Your task to perform on an android device: check google app version Image 0: 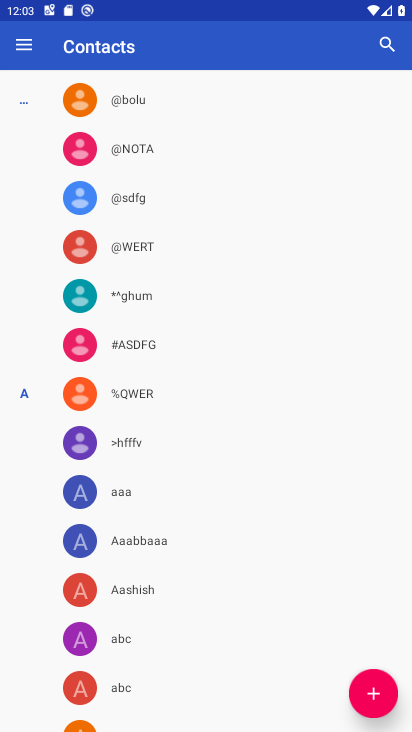
Step 0: press home button
Your task to perform on an android device: check google app version Image 1: 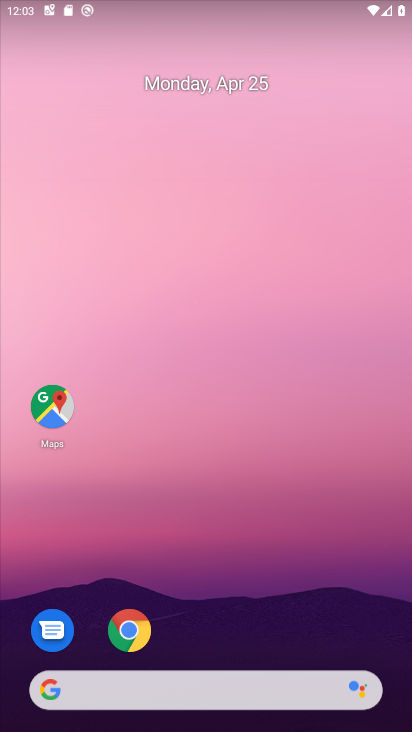
Step 1: drag from (198, 627) to (199, 161)
Your task to perform on an android device: check google app version Image 2: 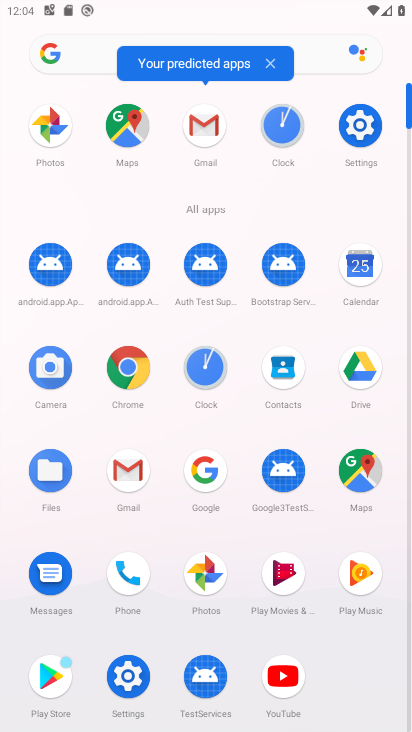
Step 2: click (203, 467)
Your task to perform on an android device: check google app version Image 3: 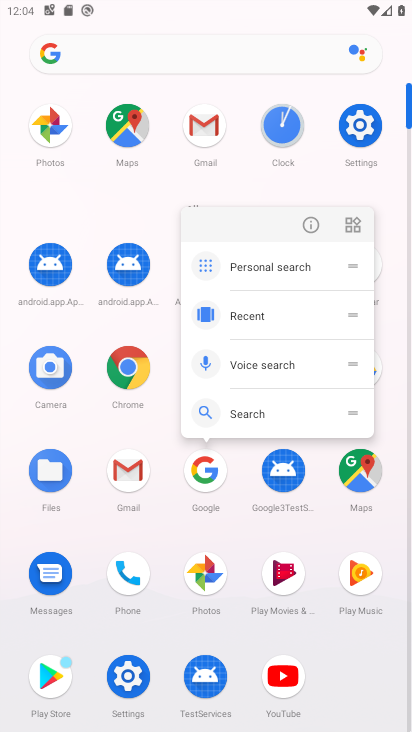
Step 3: click (307, 224)
Your task to perform on an android device: check google app version Image 4: 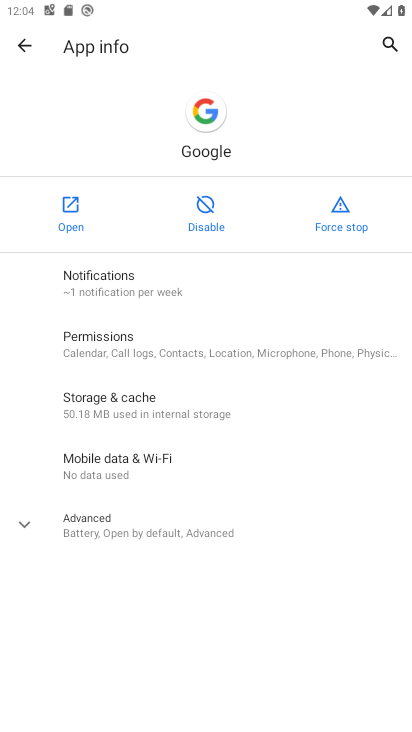
Step 4: click (59, 209)
Your task to perform on an android device: check google app version Image 5: 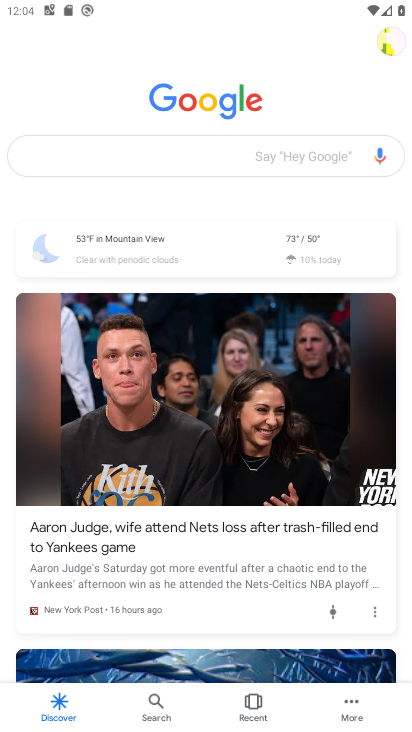
Step 5: click (391, 38)
Your task to perform on an android device: check google app version Image 6: 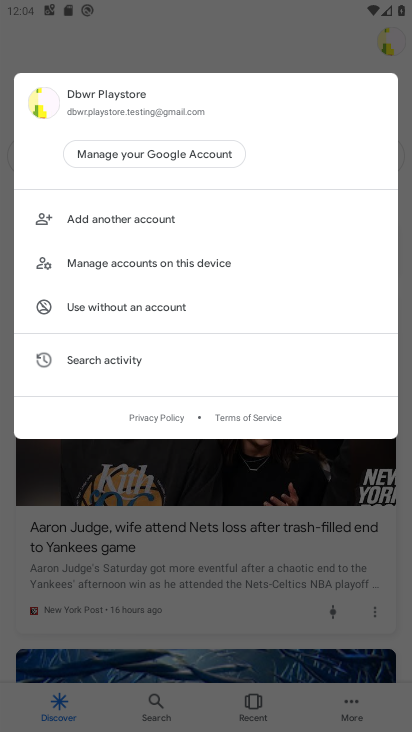
Step 6: drag from (116, 305) to (167, 93)
Your task to perform on an android device: check google app version Image 7: 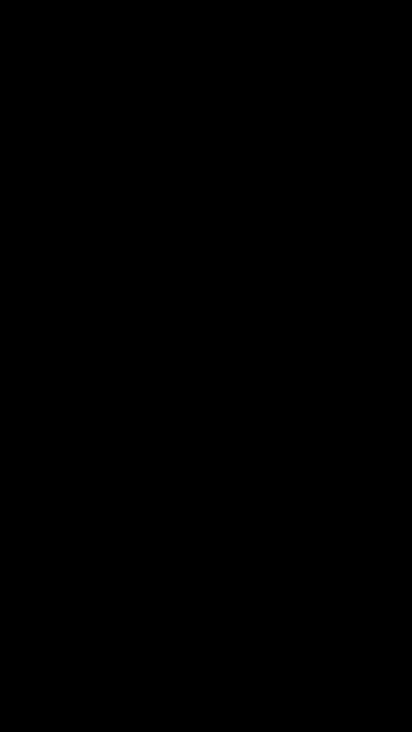
Step 7: click (342, 694)
Your task to perform on an android device: check google app version Image 8: 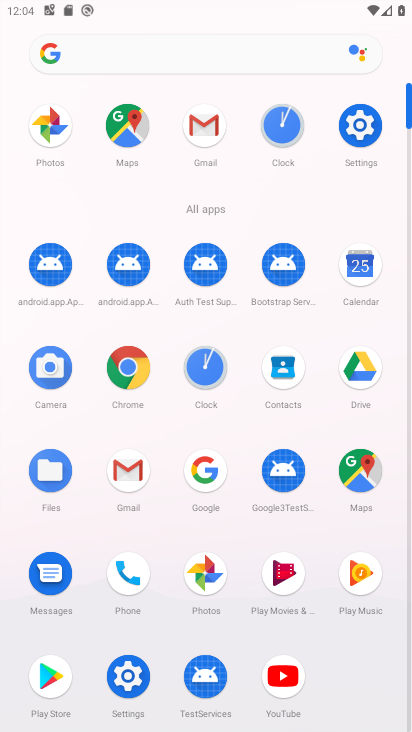
Step 8: click (199, 471)
Your task to perform on an android device: check google app version Image 9: 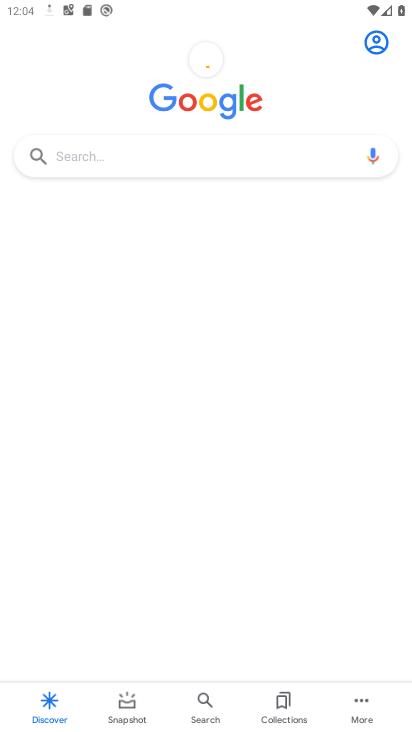
Step 9: click (357, 697)
Your task to perform on an android device: check google app version Image 10: 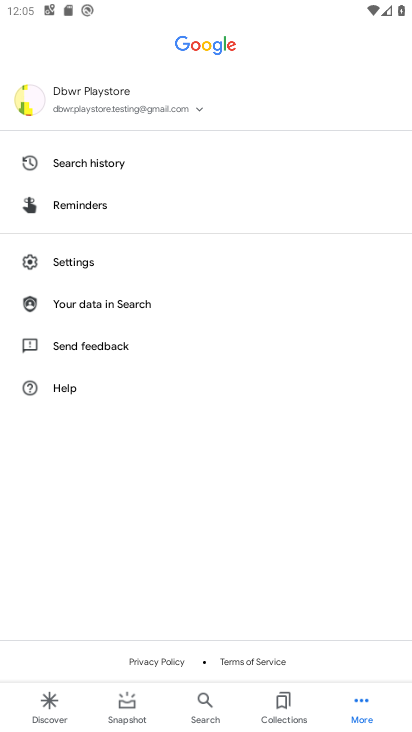
Step 10: click (90, 260)
Your task to perform on an android device: check google app version Image 11: 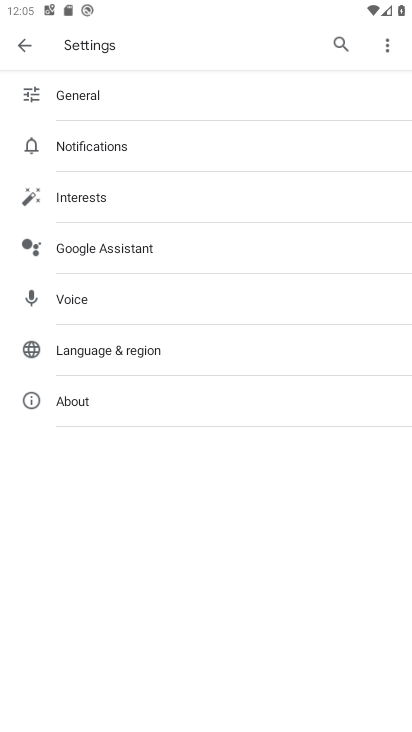
Step 11: click (126, 409)
Your task to perform on an android device: check google app version Image 12: 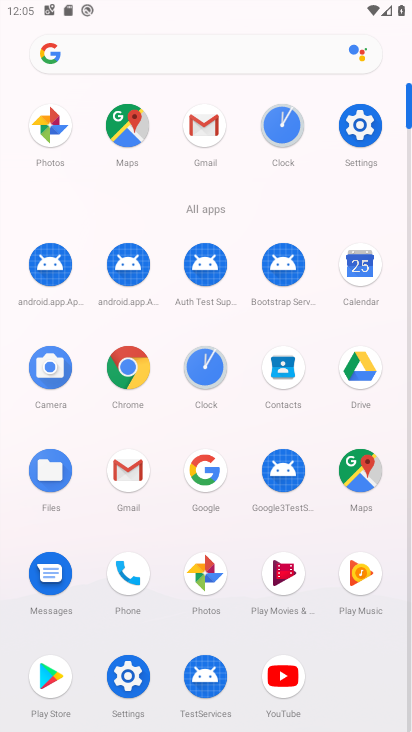
Step 12: click (205, 477)
Your task to perform on an android device: check google app version Image 13: 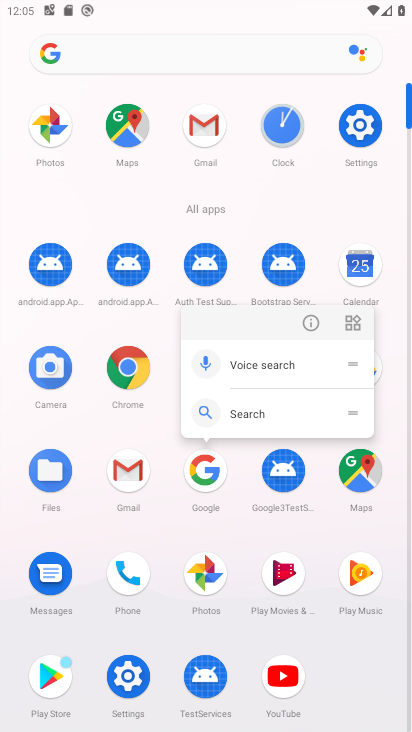
Step 13: click (305, 329)
Your task to perform on an android device: check google app version Image 14: 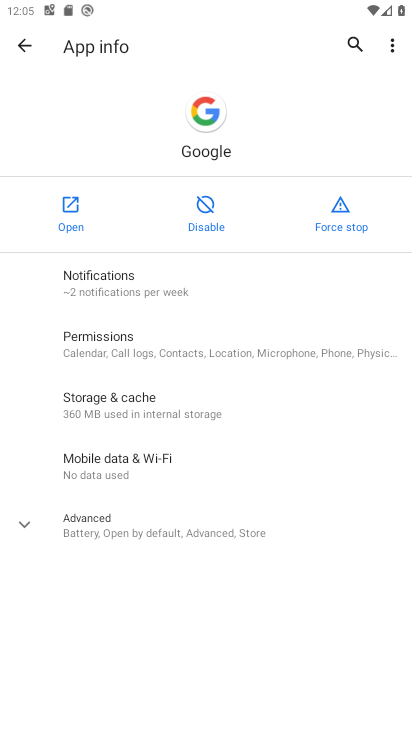
Step 14: click (72, 214)
Your task to perform on an android device: check google app version Image 15: 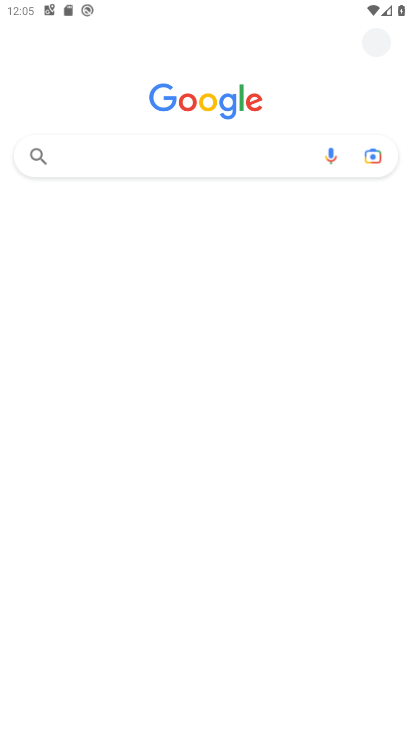
Step 15: click (65, 212)
Your task to perform on an android device: check google app version Image 16: 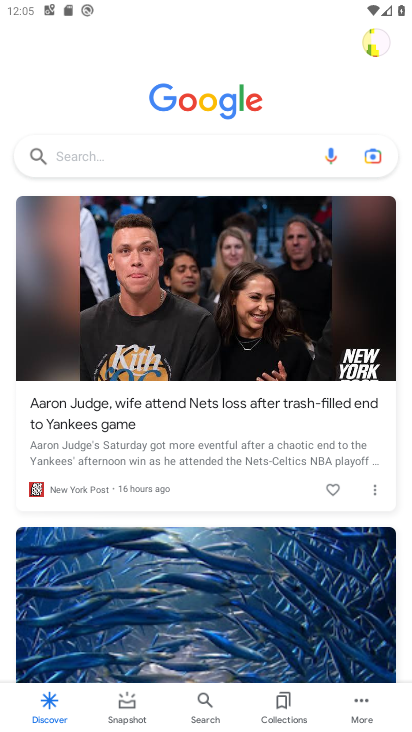
Step 16: click (366, 705)
Your task to perform on an android device: check google app version Image 17: 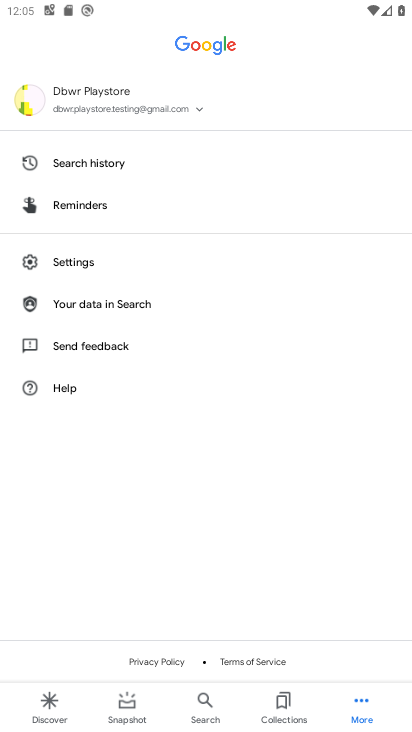
Step 17: click (119, 257)
Your task to perform on an android device: check google app version Image 18: 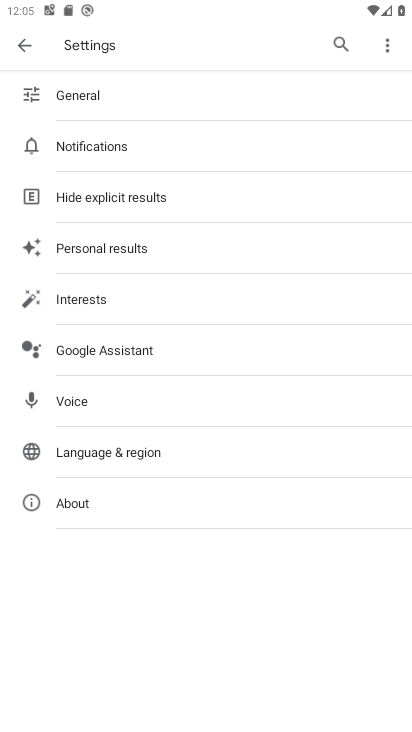
Step 18: click (125, 511)
Your task to perform on an android device: check google app version Image 19: 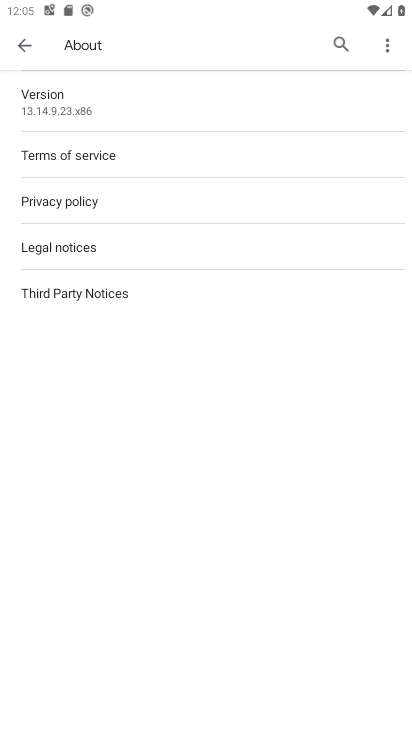
Step 19: task complete